Your task to perform on an android device: Open Chrome and go to settings Image 0: 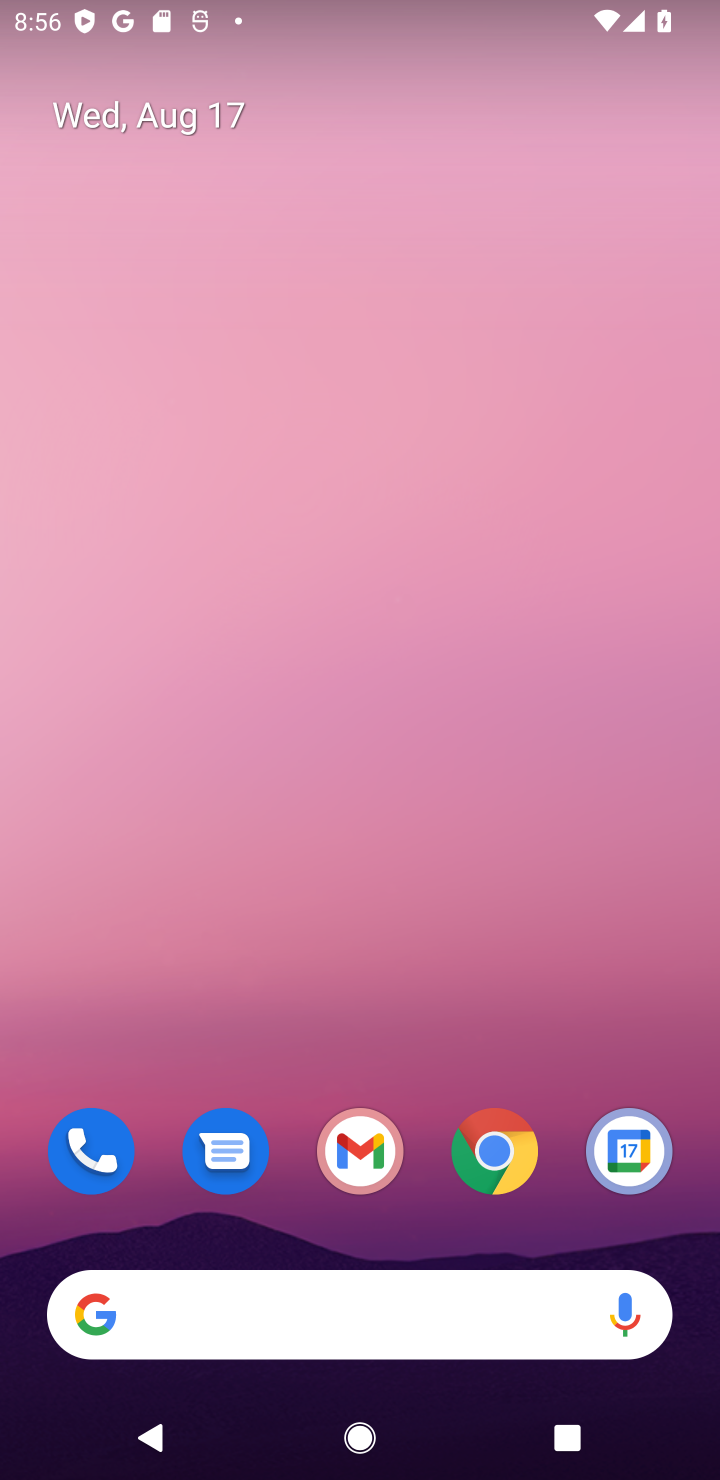
Step 0: click (493, 1158)
Your task to perform on an android device: Open Chrome and go to settings Image 1: 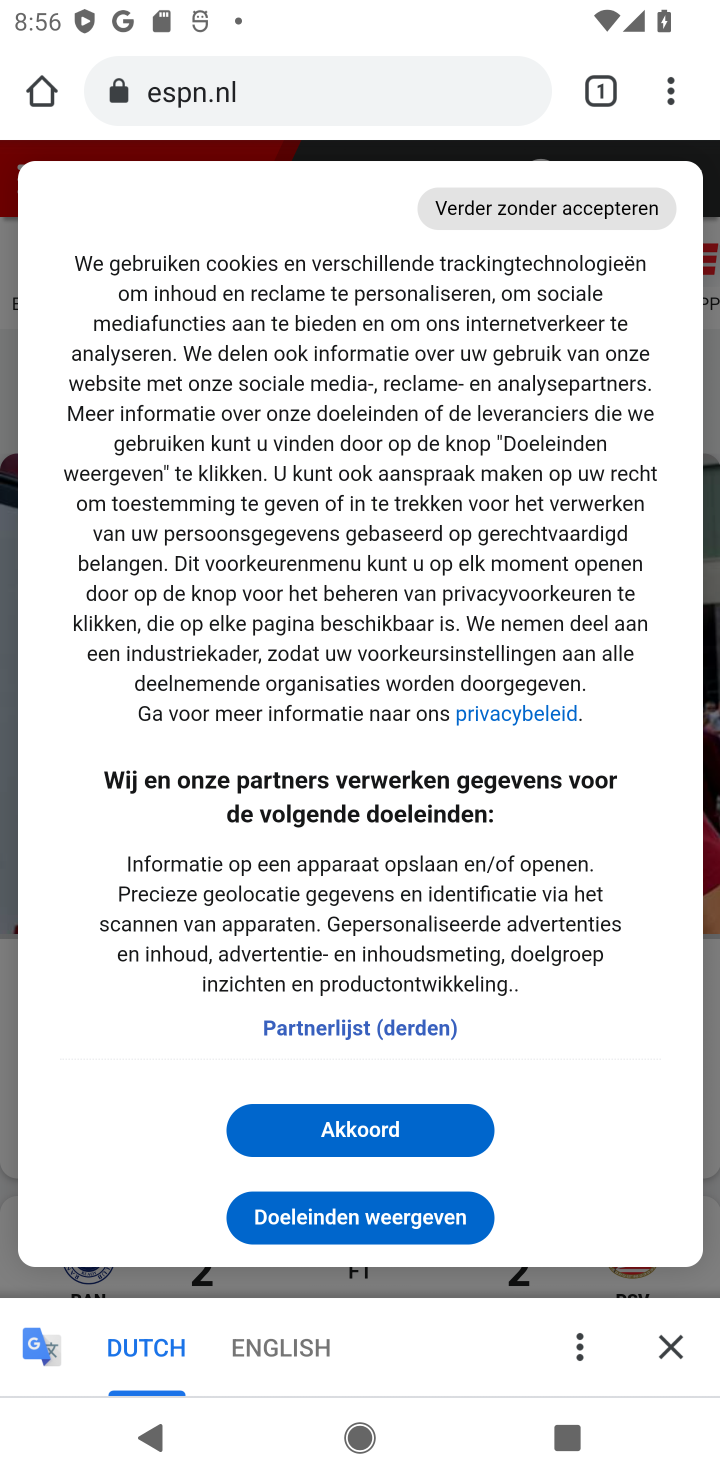
Step 1: click (671, 88)
Your task to perform on an android device: Open Chrome and go to settings Image 2: 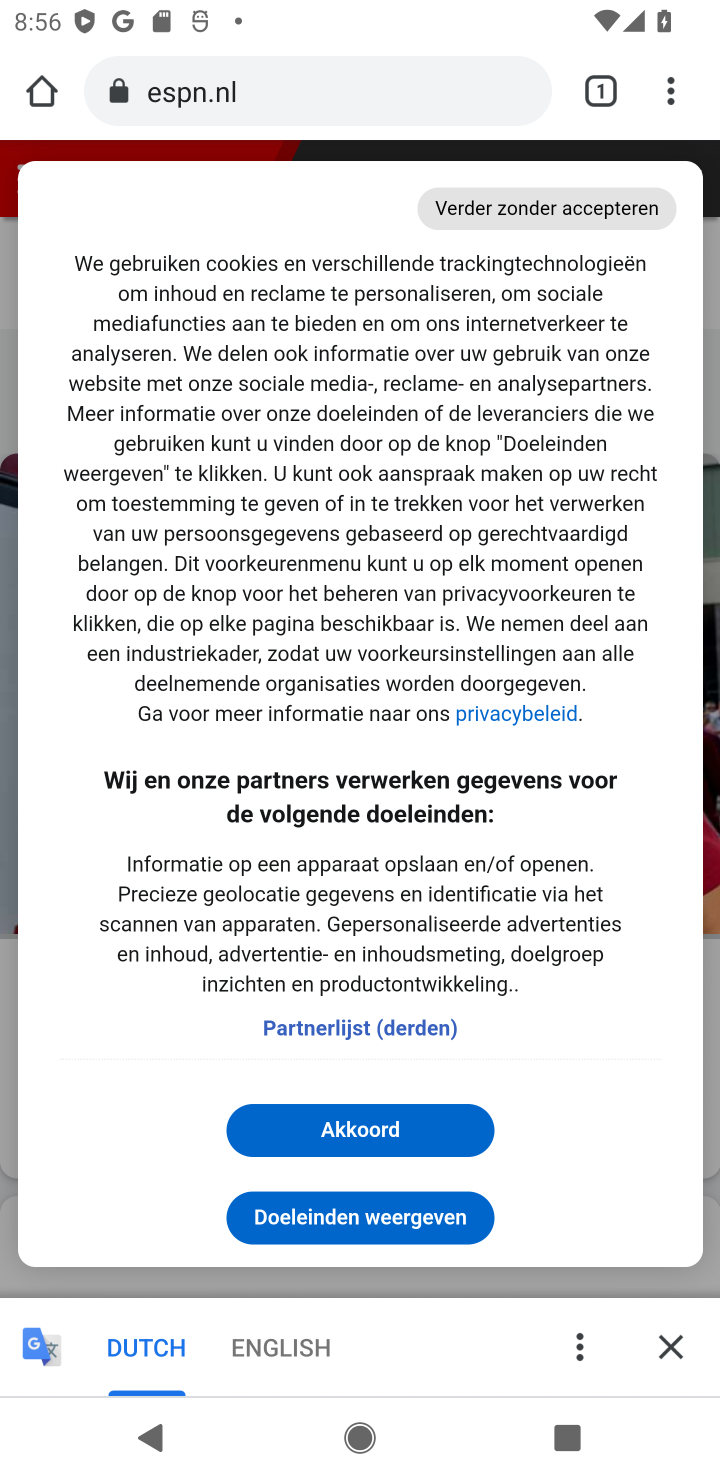
Step 2: click (663, 88)
Your task to perform on an android device: Open Chrome and go to settings Image 3: 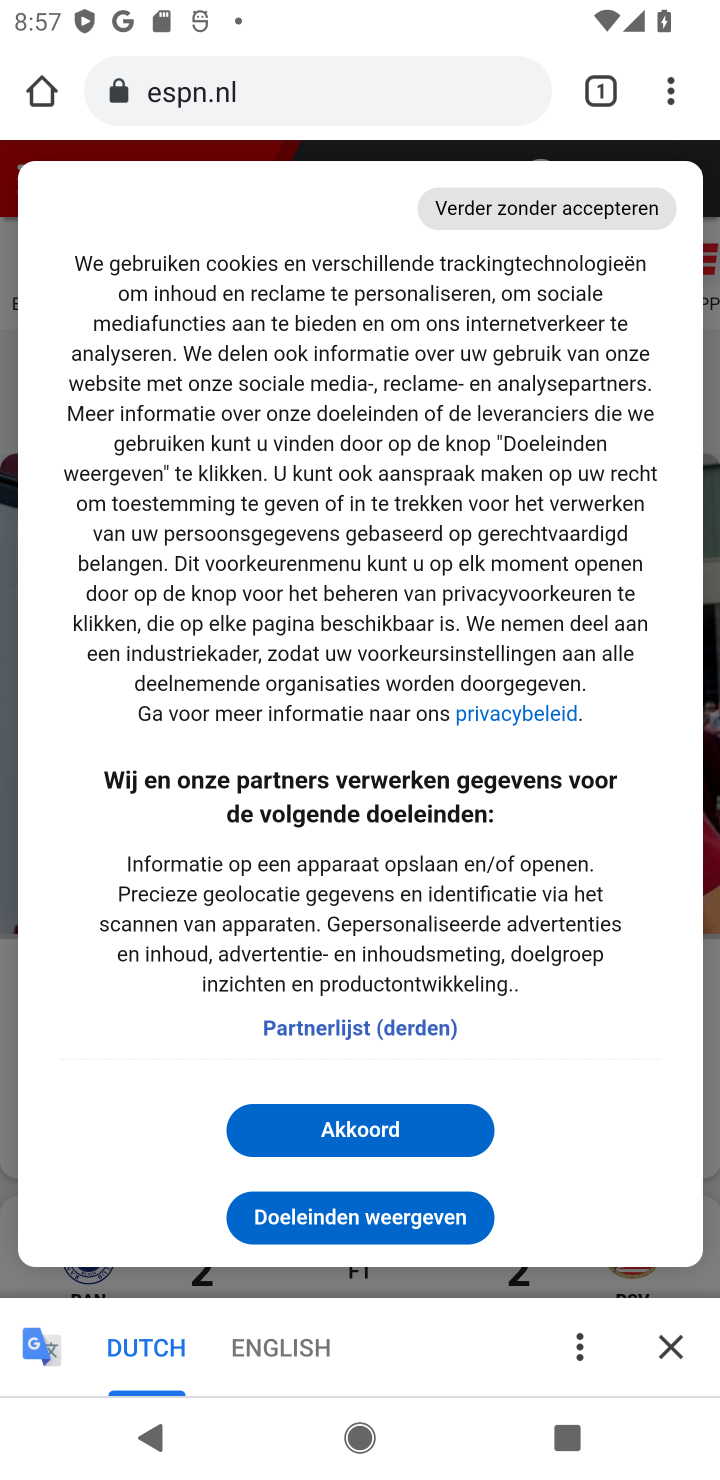
Step 3: click (663, 88)
Your task to perform on an android device: Open Chrome and go to settings Image 4: 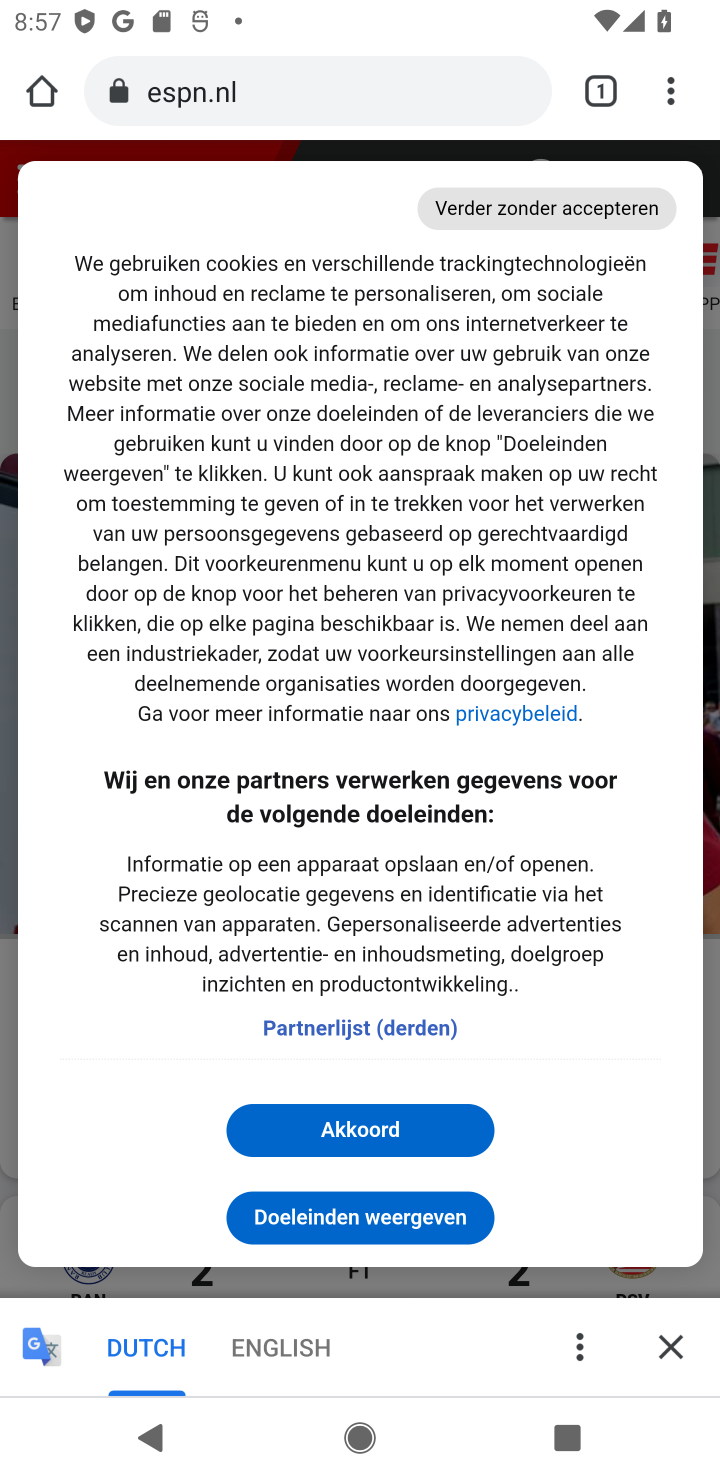
Step 4: click (669, 88)
Your task to perform on an android device: Open Chrome and go to settings Image 5: 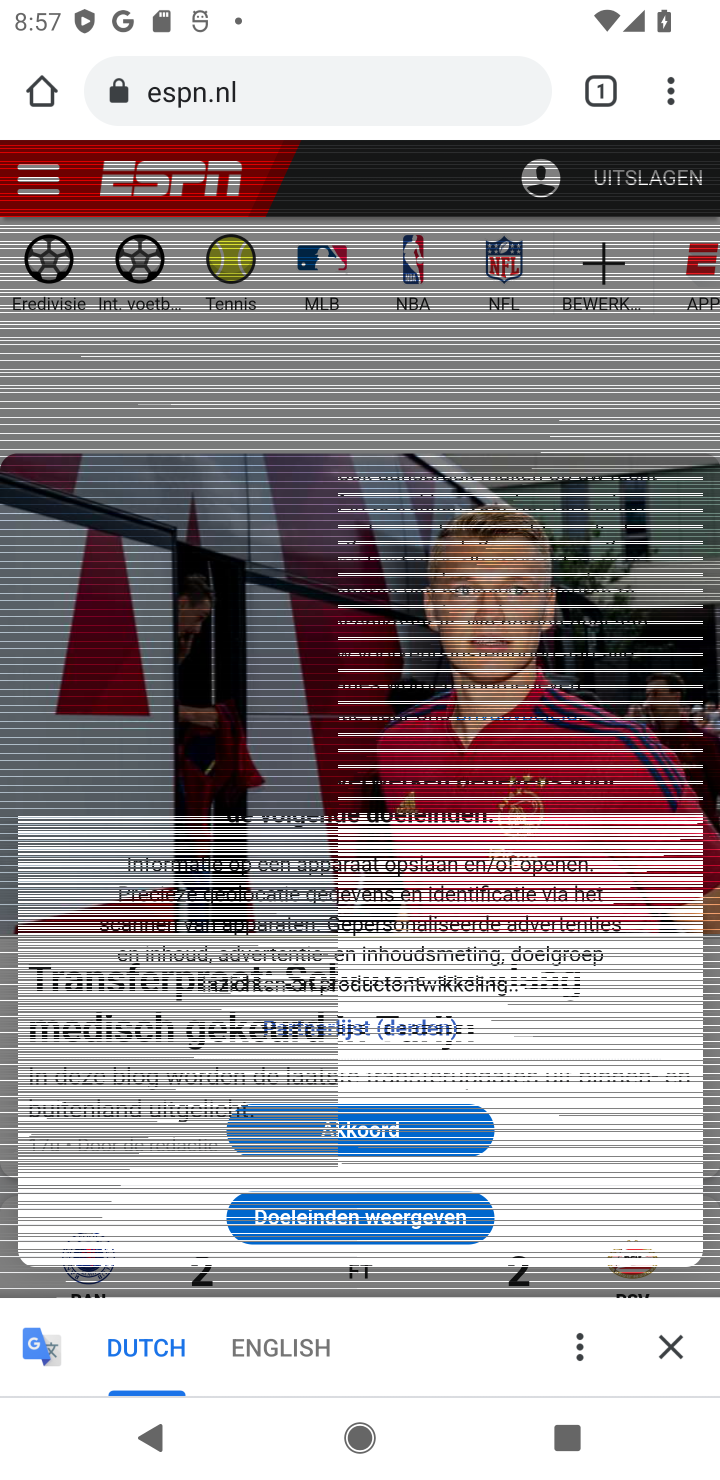
Step 5: task complete